Your task to perform on an android device: delete a single message in the gmail app Image 0: 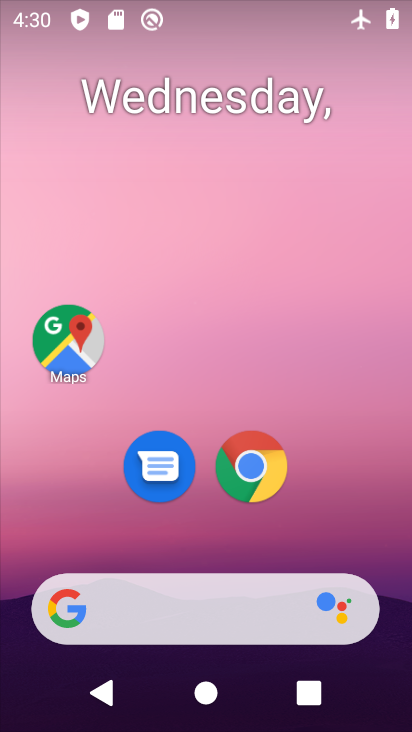
Step 0: drag from (321, 519) to (211, 3)
Your task to perform on an android device: delete a single message in the gmail app Image 1: 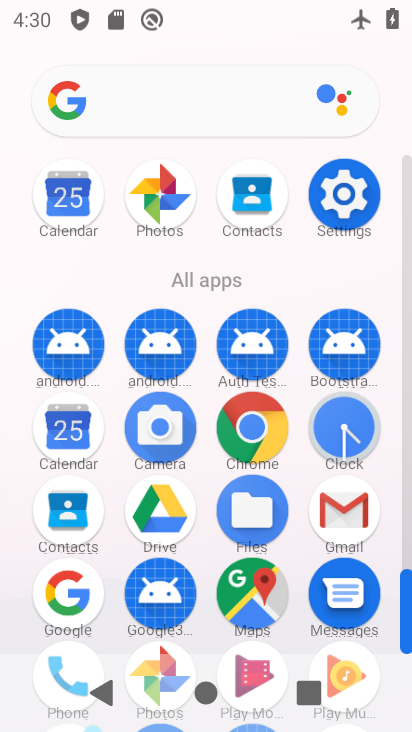
Step 1: click (342, 511)
Your task to perform on an android device: delete a single message in the gmail app Image 2: 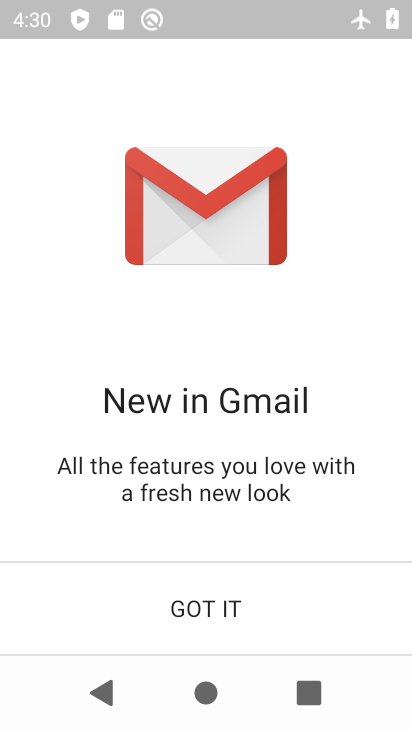
Step 2: click (209, 607)
Your task to perform on an android device: delete a single message in the gmail app Image 3: 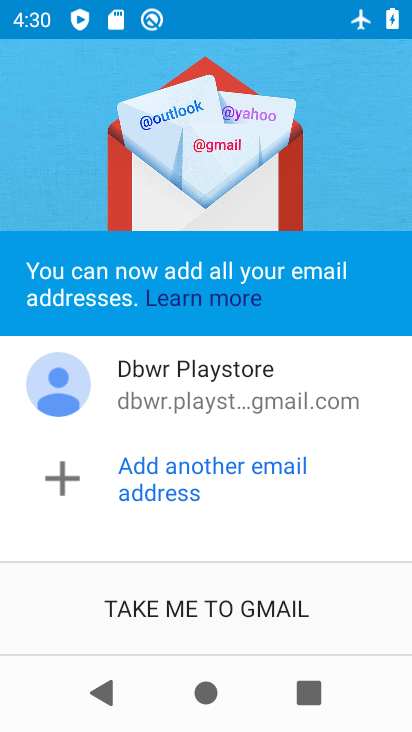
Step 3: click (209, 607)
Your task to perform on an android device: delete a single message in the gmail app Image 4: 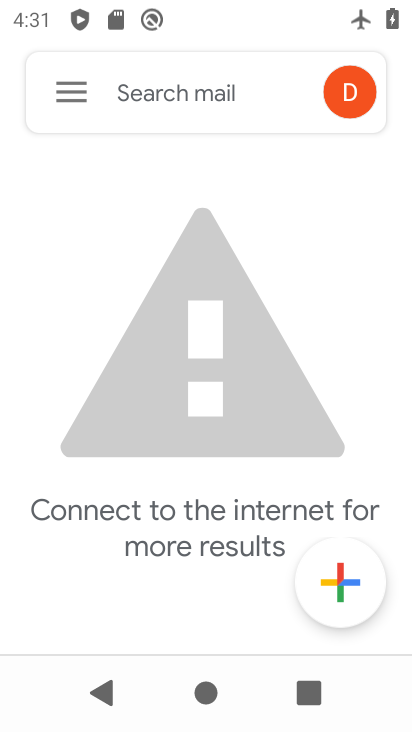
Step 4: click (78, 96)
Your task to perform on an android device: delete a single message in the gmail app Image 5: 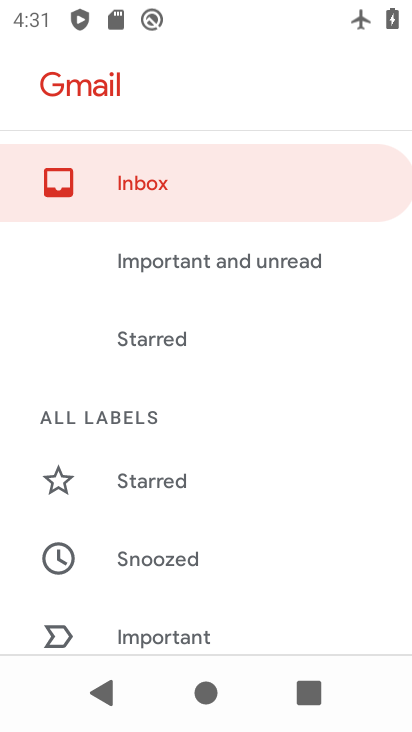
Step 5: click (156, 478)
Your task to perform on an android device: delete a single message in the gmail app Image 6: 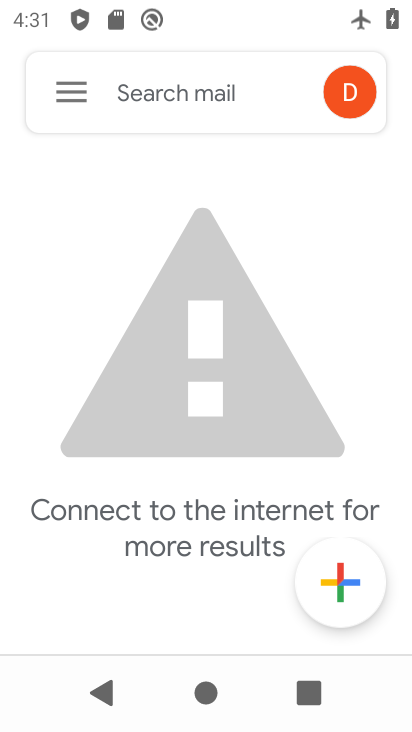
Step 6: click (76, 94)
Your task to perform on an android device: delete a single message in the gmail app Image 7: 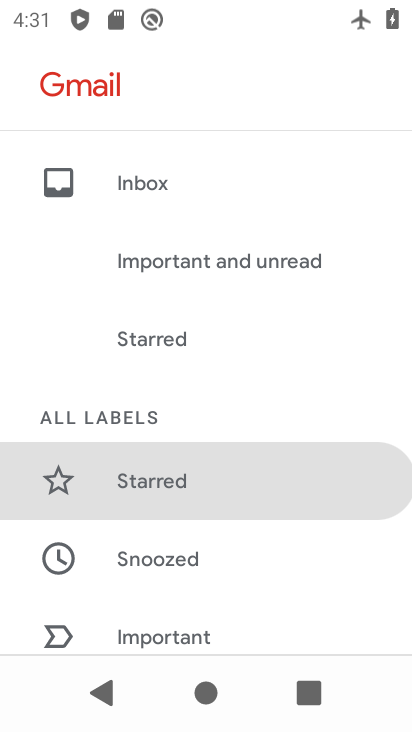
Step 7: click (188, 267)
Your task to perform on an android device: delete a single message in the gmail app Image 8: 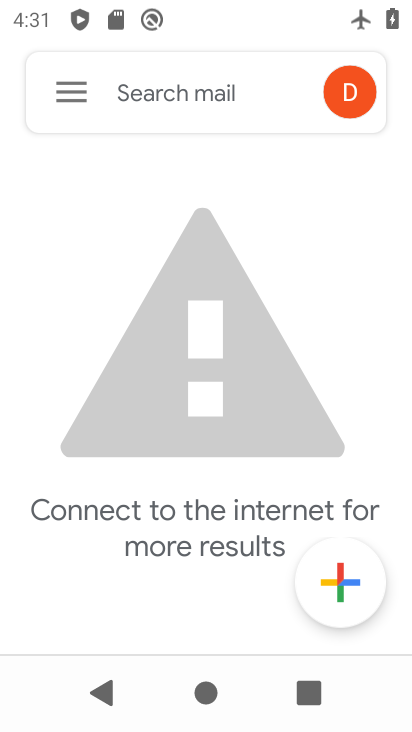
Step 8: task complete